Your task to perform on an android device: Clear all items from cart on walmart. Search for usb-a on walmart, select the first entry, and add it to the cart. Image 0: 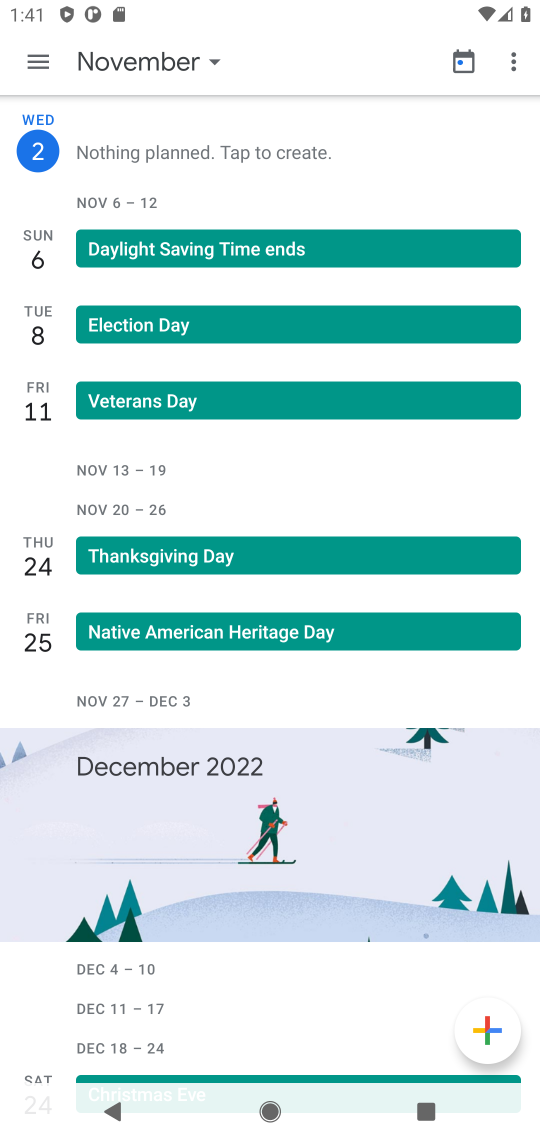
Step 0: press home button
Your task to perform on an android device: Clear all items from cart on walmart. Search for usb-a on walmart, select the first entry, and add it to the cart. Image 1: 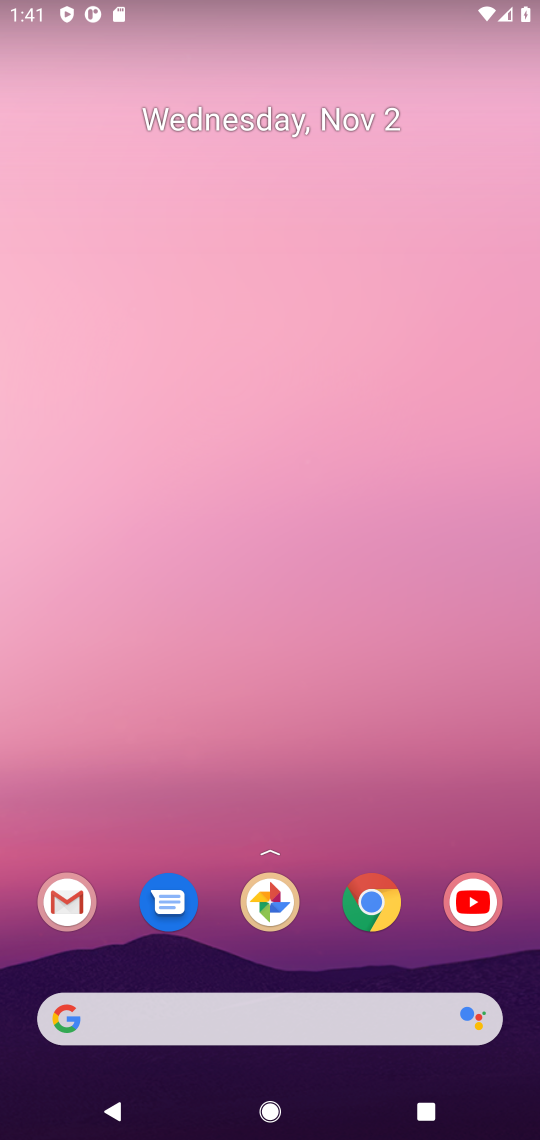
Step 1: click (274, 1013)
Your task to perform on an android device: Clear all items from cart on walmart. Search for usb-a on walmart, select the first entry, and add it to the cart. Image 2: 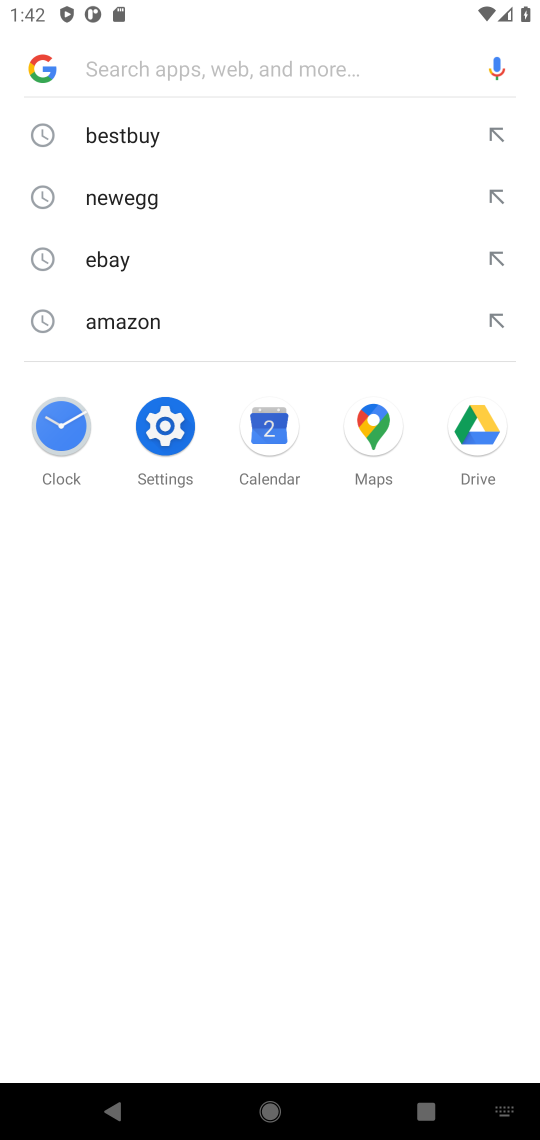
Step 2: type "walmart"
Your task to perform on an android device: Clear all items from cart on walmart. Search for usb-a on walmart, select the first entry, and add it to the cart. Image 3: 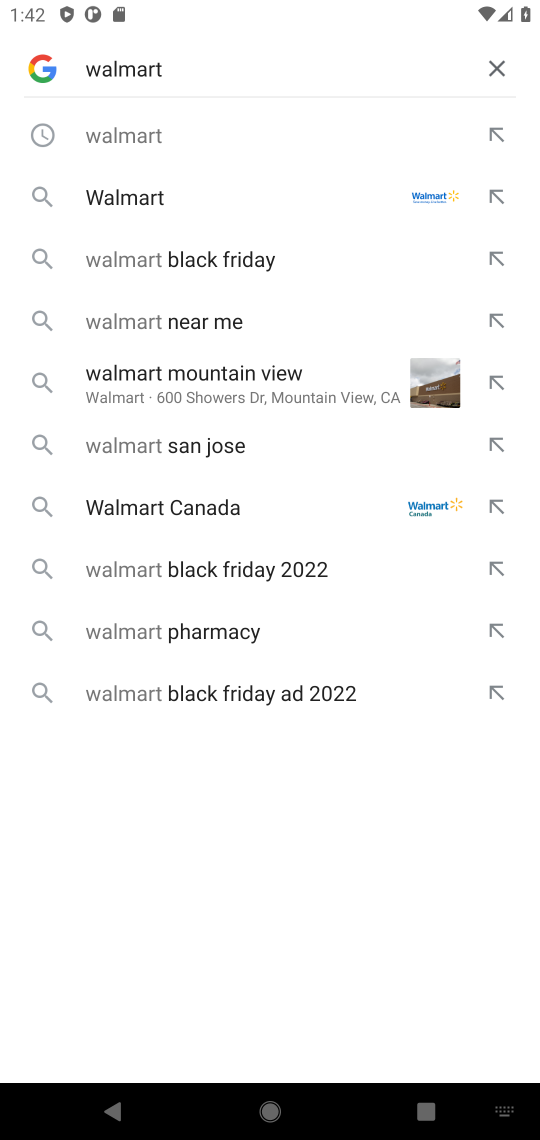
Step 3: click (137, 130)
Your task to perform on an android device: Clear all items from cart on walmart. Search for usb-a on walmart, select the first entry, and add it to the cart. Image 4: 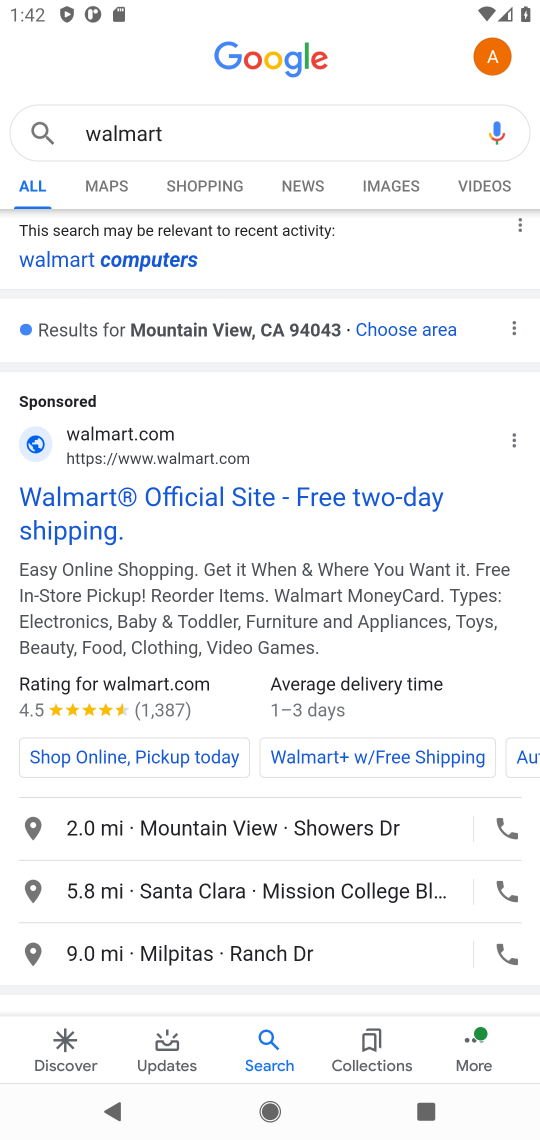
Step 4: click (127, 438)
Your task to perform on an android device: Clear all items from cart on walmart. Search for usb-a on walmart, select the first entry, and add it to the cart. Image 5: 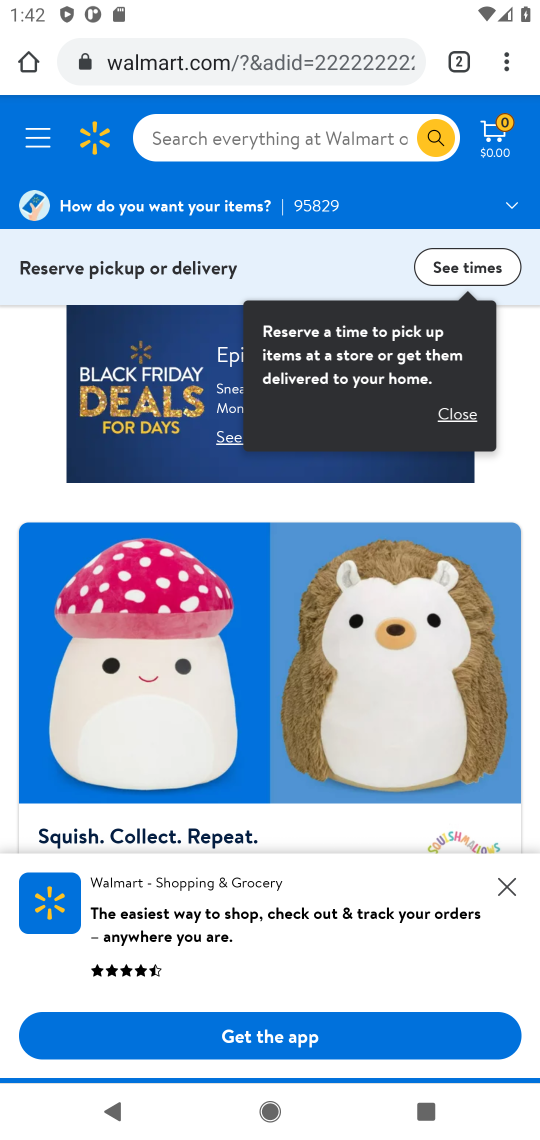
Step 5: click (508, 129)
Your task to perform on an android device: Clear all items from cart on walmart. Search for usb-a on walmart, select the first entry, and add it to the cart. Image 6: 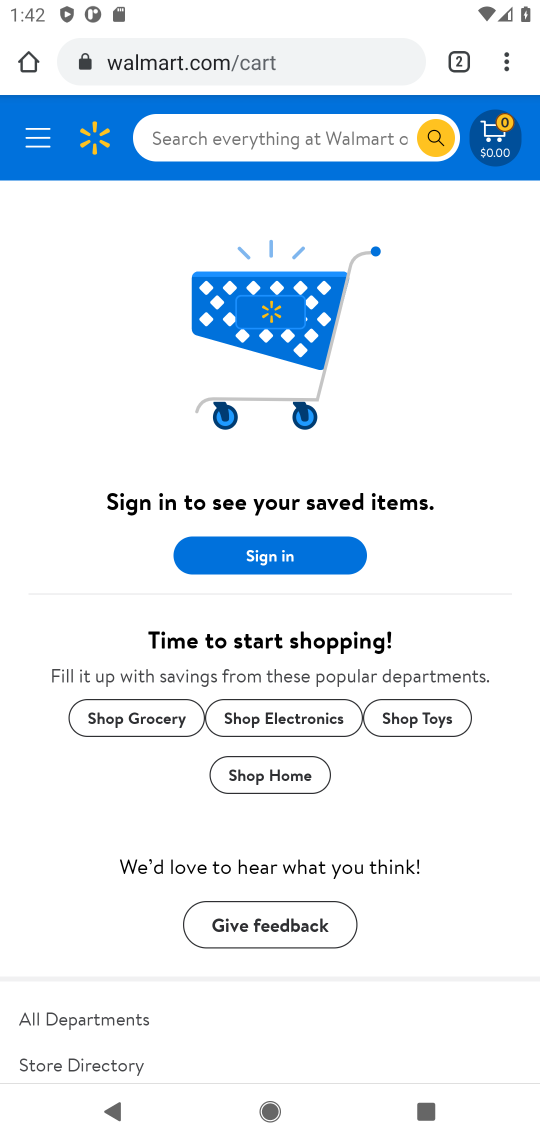
Step 6: click (183, 137)
Your task to perform on an android device: Clear all items from cart on walmart. Search for usb-a on walmart, select the first entry, and add it to the cart. Image 7: 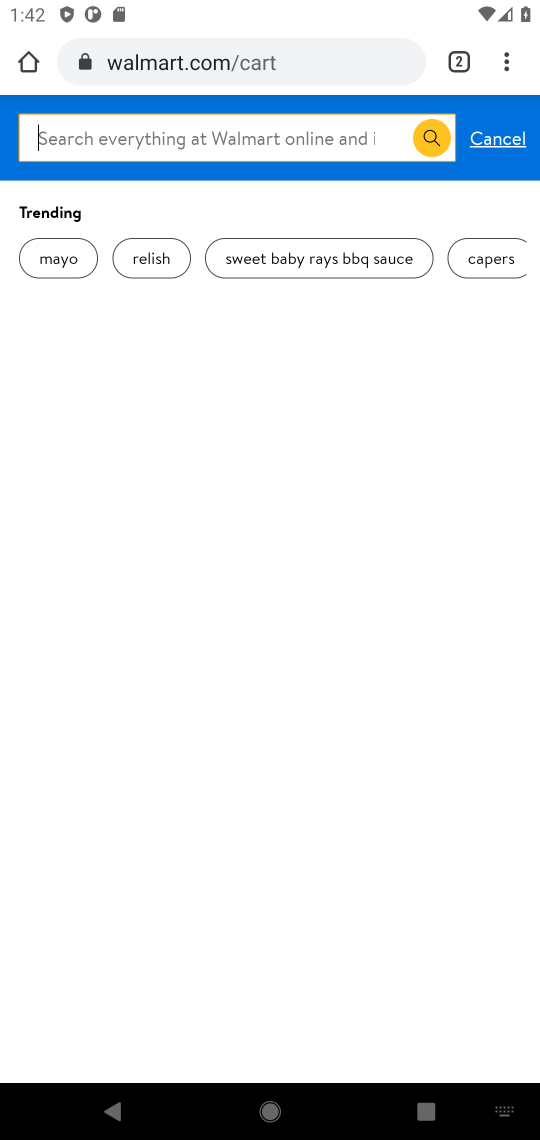
Step 7: type "usb-a"
Your task to perform on an android device: Clear all items from cart on walmart. Search for usb-a on walmart, select the first entry, and add it to the cart. Image 8: 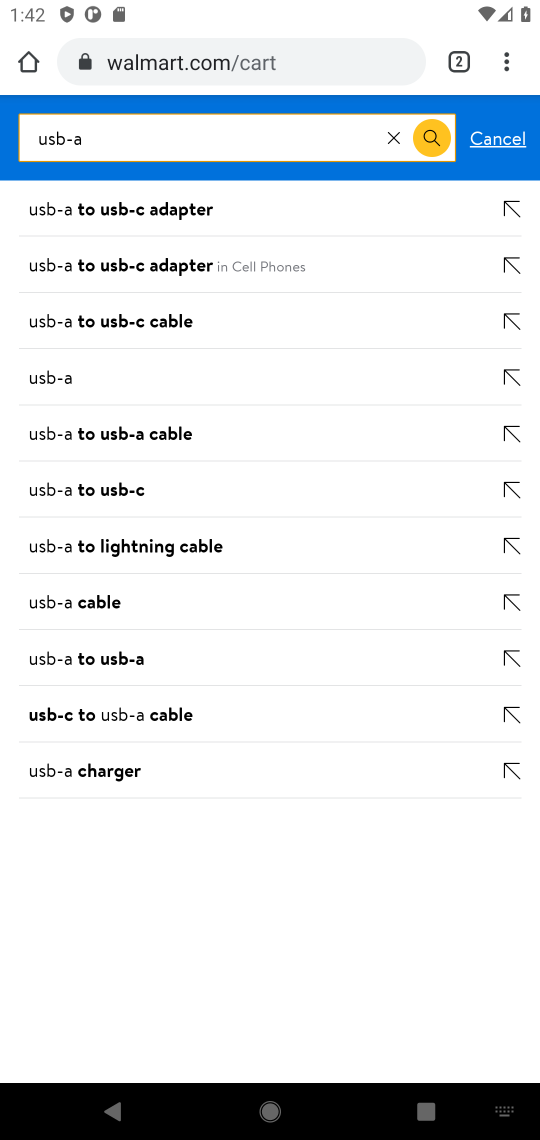
Step 8: click (48, 374)
Your task to perform on an android device: Clear all items from cart on walmart. Search for usb-a on walmart, select the first entry, and add it to the cart. Image 9: 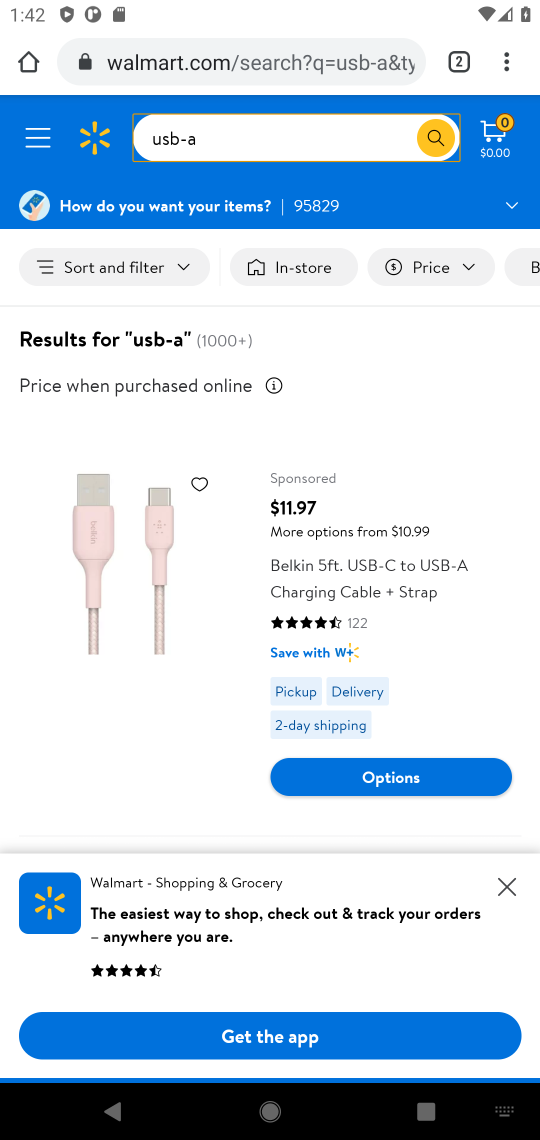
Step 9: click (510, 891)
Your task to perform on an android device: Clear all items from cart on walmart. Search for usb-a on walmart, select the first entry, and add it to the cart. Image 10: 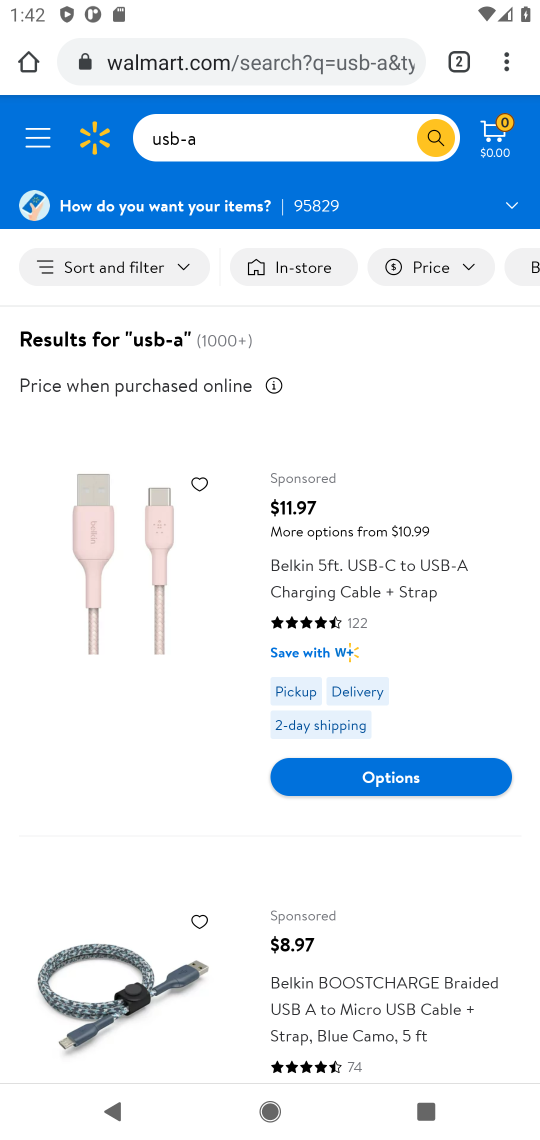
Step 10: click (379, 781)
Your task to perform on an android device: Clear all items from cart on walmart. Search for usb-a on walmart, select the first entry, and add it to the cart. Image 11: 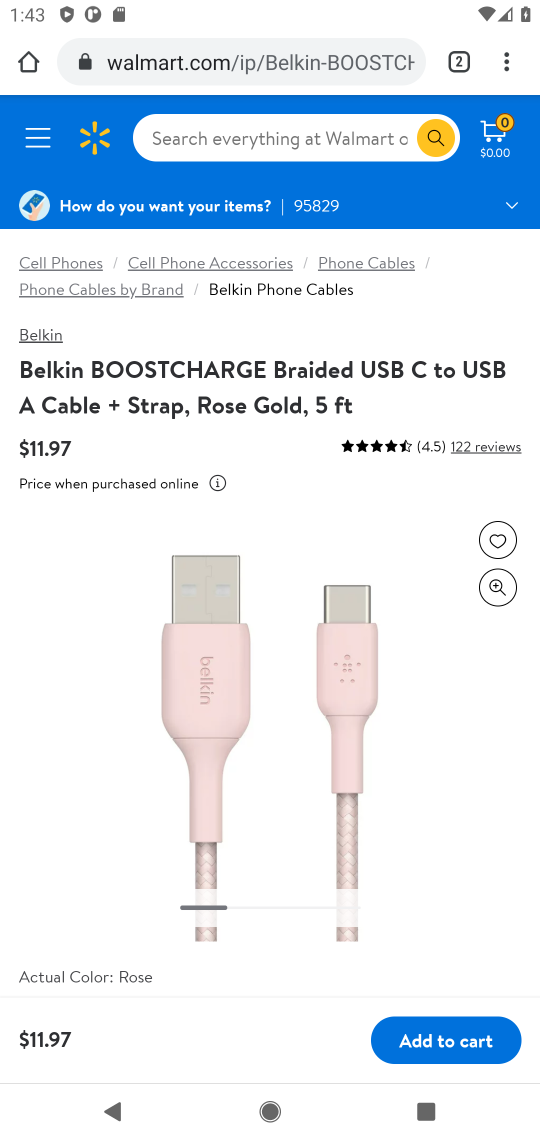
Step 11: click (434, 1044)
Your task to perform on an android device: Clear all items from cart on walmart. Search for usb-a on walmart, select the first entry, and add it to the cart. Image 12: 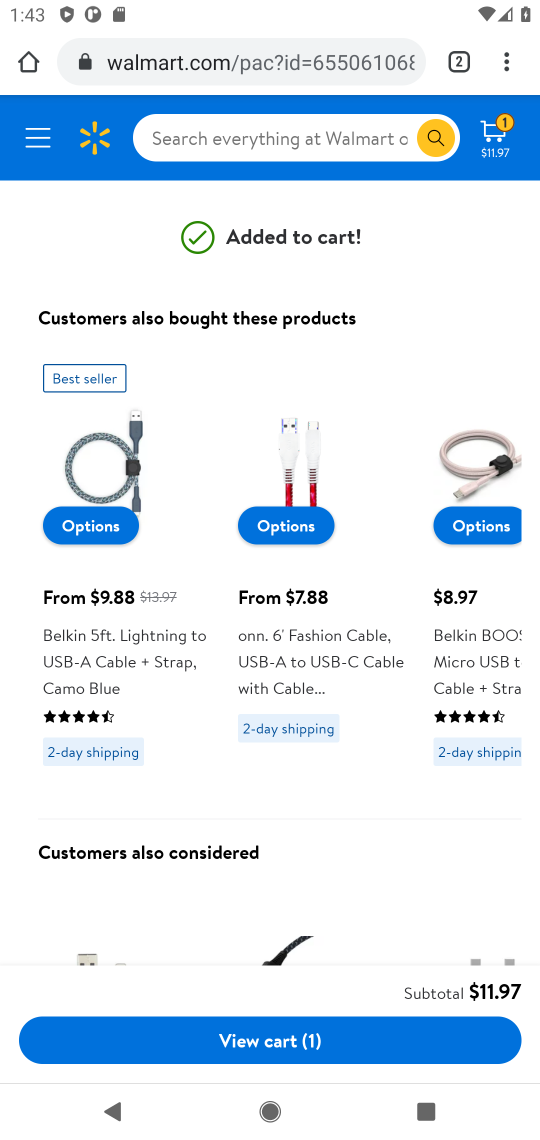
Step 12: task complete